Your task to perform on an android device: toggle data saver in the chrome app Image 0: 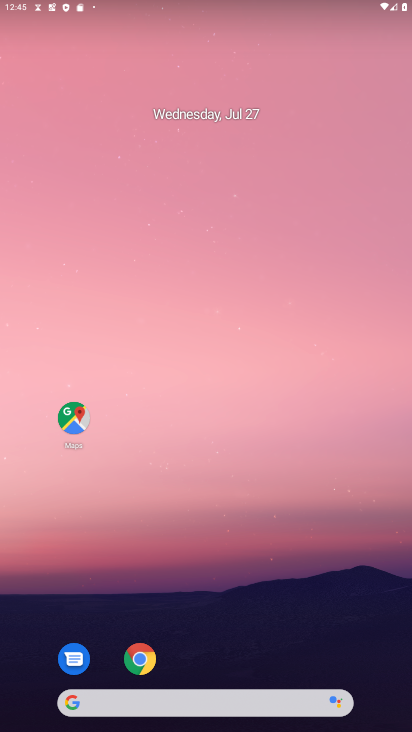
Step 0: click (267, 48)
Your task to perform on an android device: toggle data saver in the chrome app Image 1: 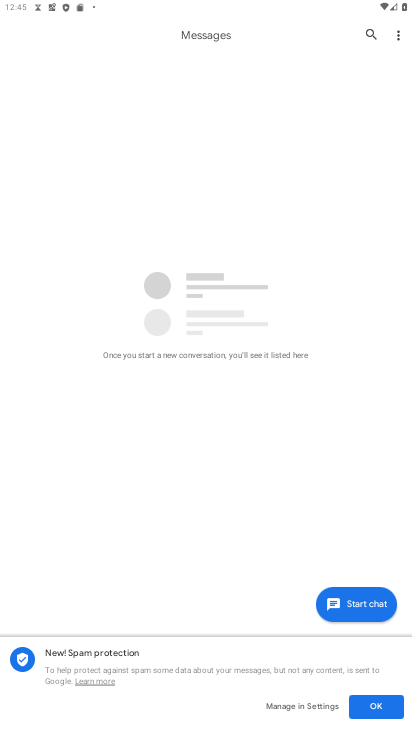
Step 1: press home button
Your task to perform on an android device: toggle data saver in the chrome app Image 2: 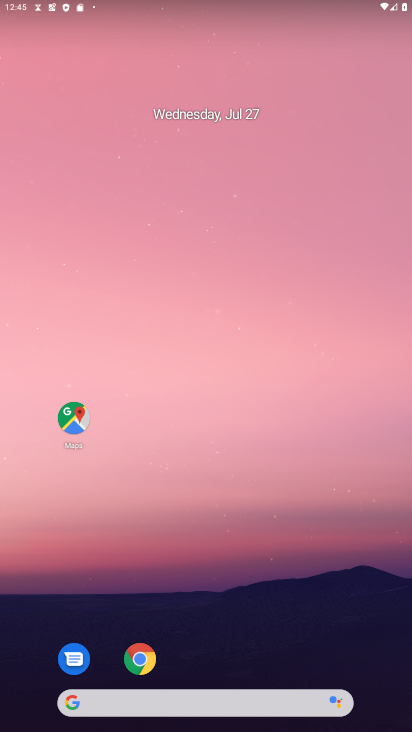
Step 2: click (135, 654)
Your task to perform on an android device: toggle data saver in the chrome app Image 3: 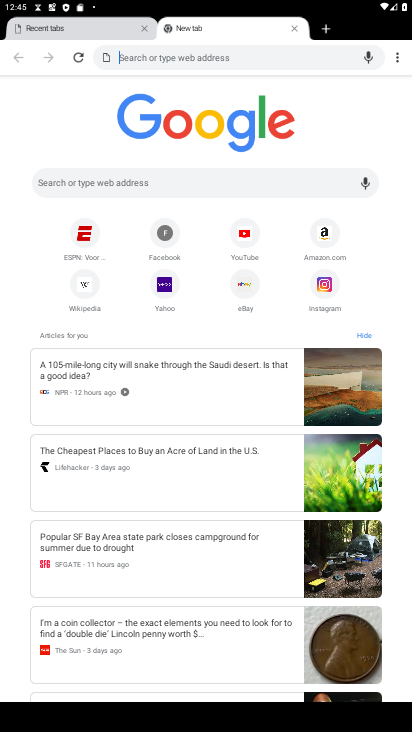
Step 3: click (395, 59)
Your task to perform on an android device: toggle data saver in the chrome app Image 4: 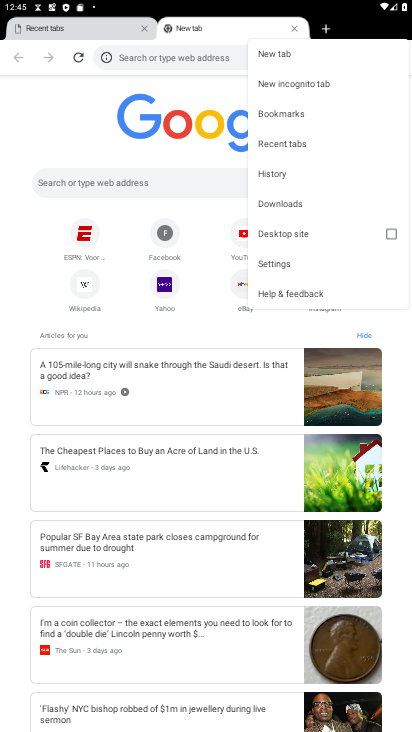
Step 4: click (303, 262)
Your task to perform on an android device: toggle data saver in the chrome app Image 5: 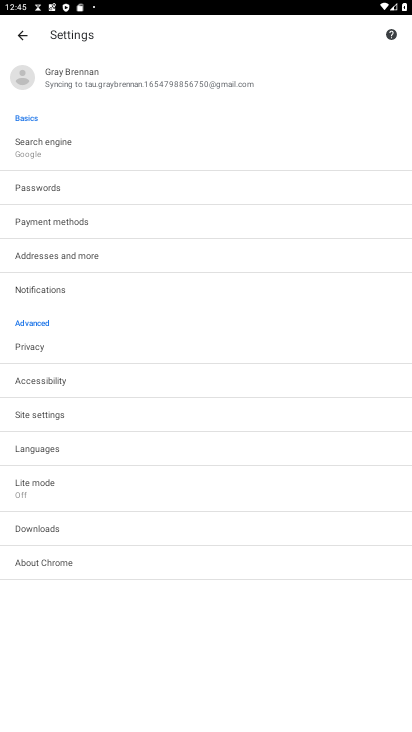
Step 5: click (54, 488)
Your task to perform on an android device: toggle data saver in the chrome app Image 6: 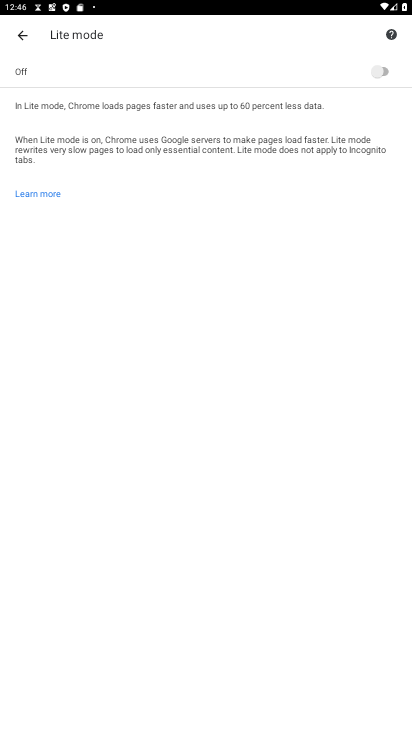
Step 6: click (384, 65)
Your task to perform on an android device: toggle data saver in the chrome app Image 7: 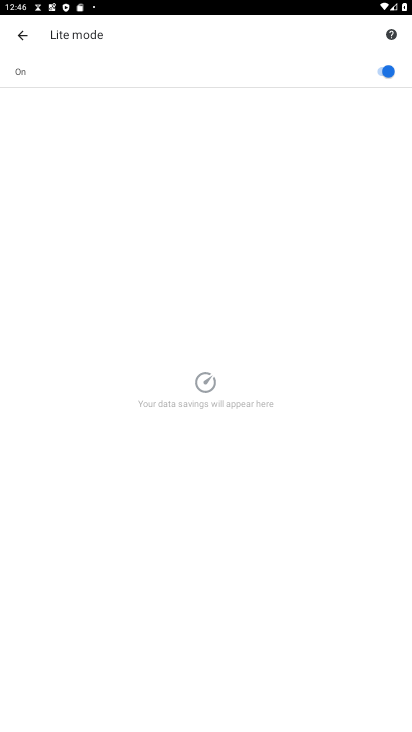
Step 7: task complete